Your task to perform on an android device: change text size in settings app Image 0: 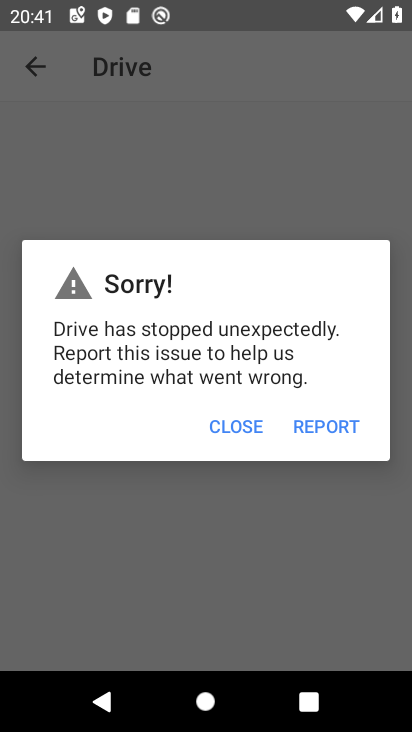
Step 0: press home button
Your task to perform on an android device: change text size in settings app Image 1: 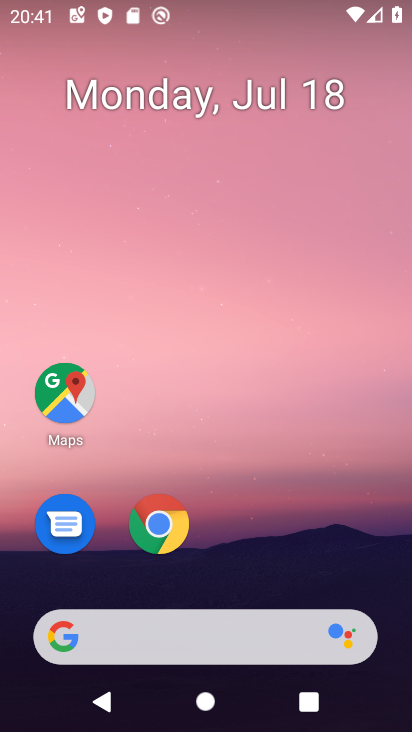
Step 1: drag from (270, 556) to (315, 49)
Your task to perform on an android device: change text size in settings app Image 2: 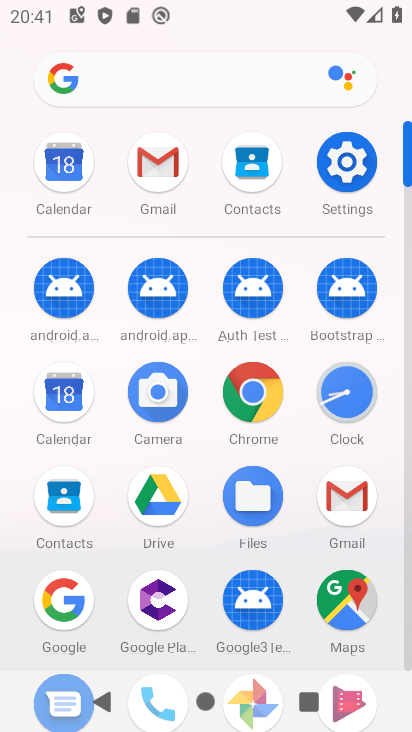
Step 2: click (335, 160)
Your task to perform on an android device: change text size in settings app Image 3: 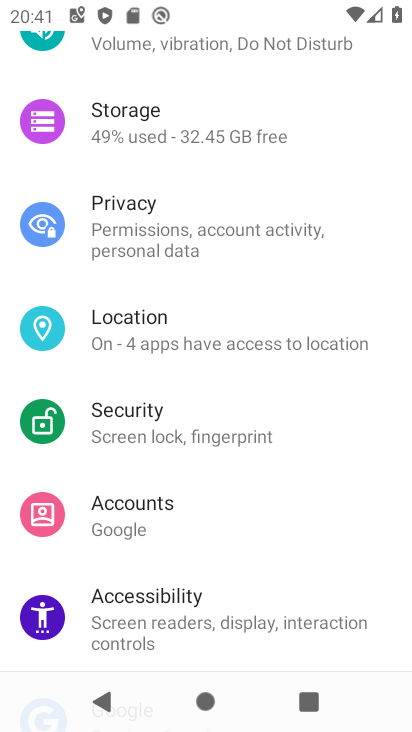
Step 3: drag from (245, 195) to (248, 582)
Your task to perform on an android device: change text size in settings app Image 4: 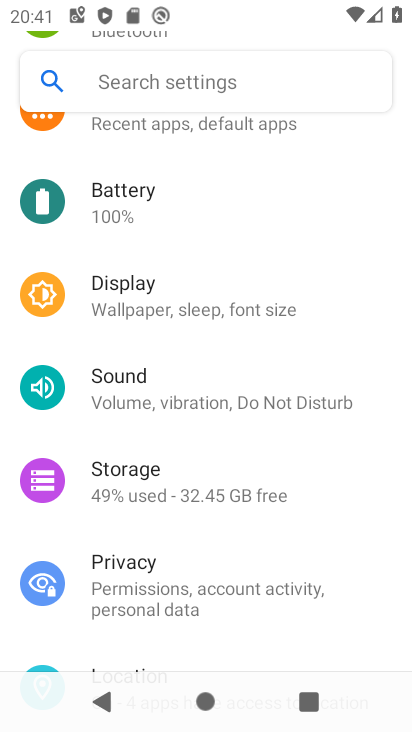
Step 4: click (186, 291)
Your task to perform on an android device: change text size in settings app Image 5: 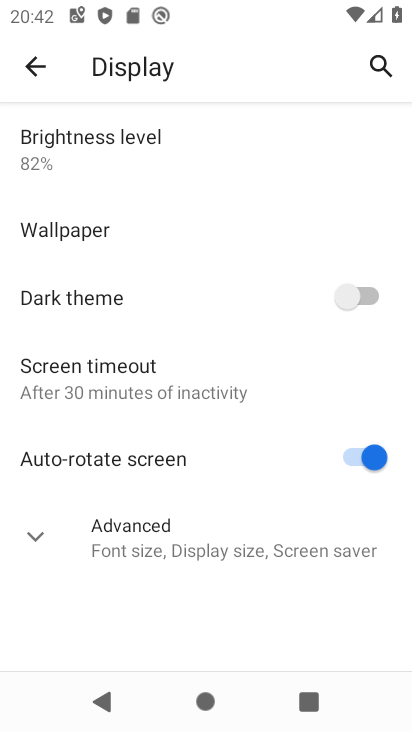
Step 5: click (33, 533)
Your task to perform on an android device: change text size in settings app Image 6: 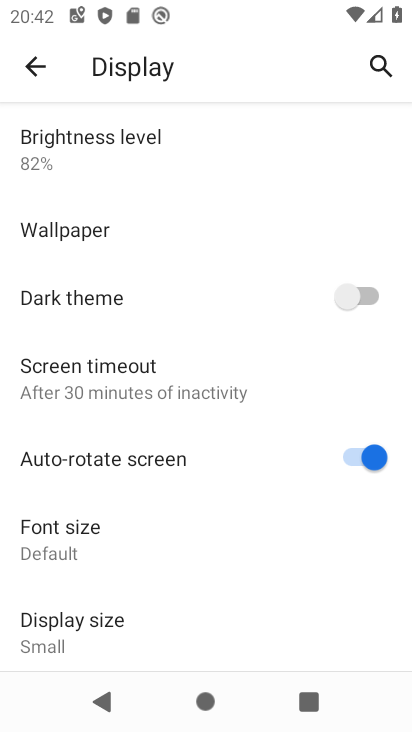
Step 6: drag from (178, 560) to (210, 205)
Your task to perform on an android device: change text size in settings app Image 7: 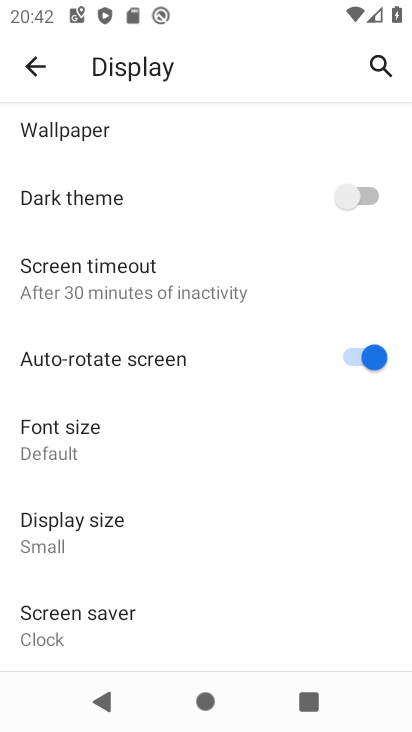
Step 7: click (126, 441)
Your task to perform on an android device: change text size in settings app Image 8: 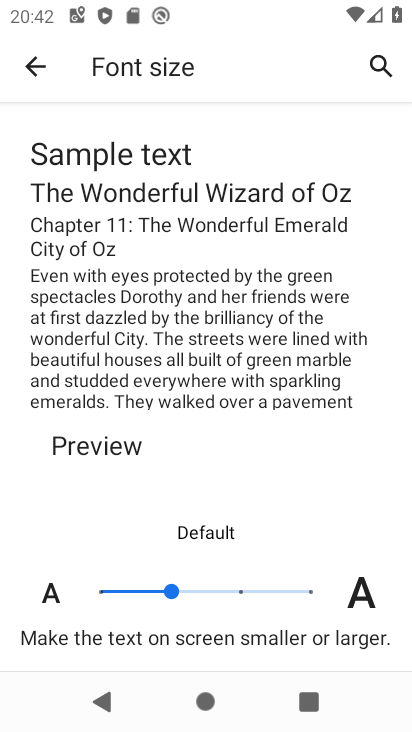
Step 8: click (104, 590)
Your task to perform on an android device: change text size in settings app Image 9: 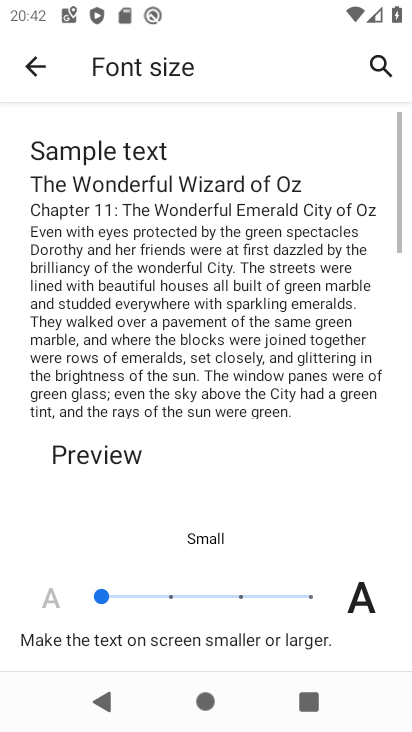
Step 9: click (41, 64)
Your task to perform on an android device: change text size in settings app Image 10: 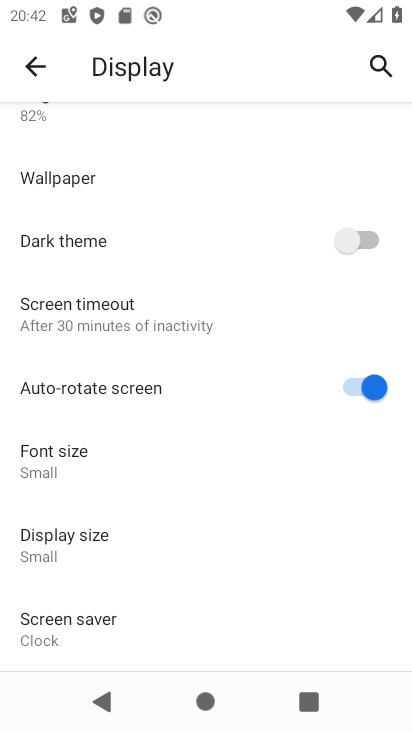
Step 10: task complete